Your task to perform on an android device: Search for sushi restaurants on Maps Image 0: 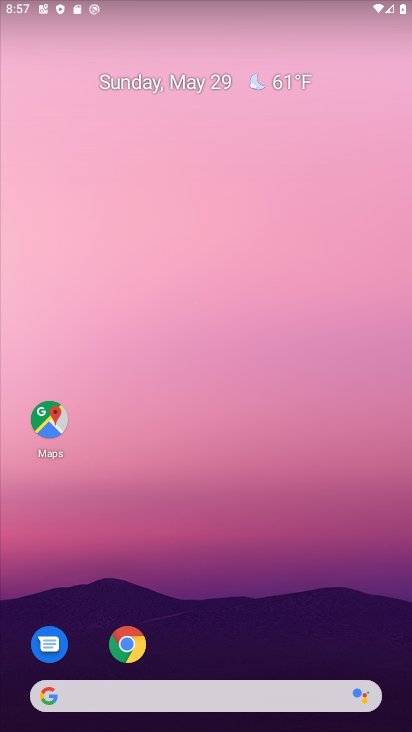
Step 0: click (48, 420)
Your task to perform on an android device: Search for sushi restaurants on Maps Image 1: 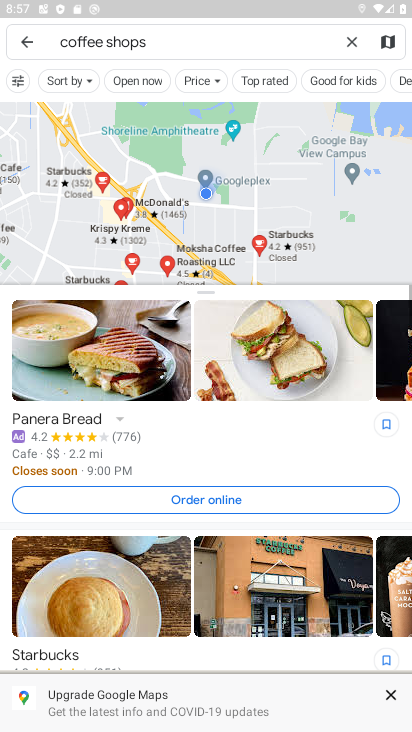
Step 1: click (225, 40)
Your task to perform on an android device: Search for sushi restaurants on Maps Image 2: 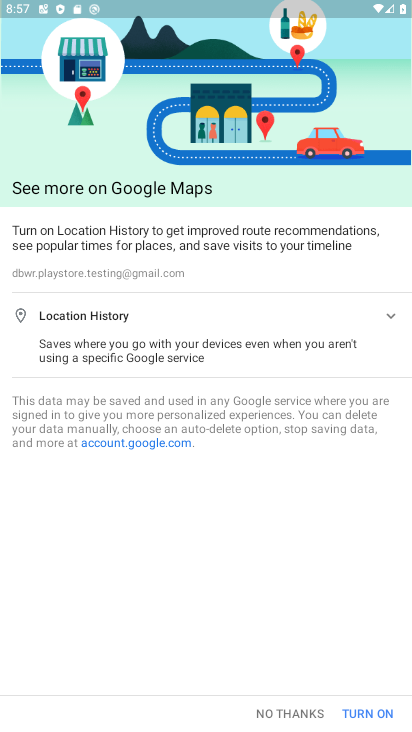
Step 2: click (370, 714)
Your task to perform on an android device: Search for sushi restaurants on Maps Image 3: 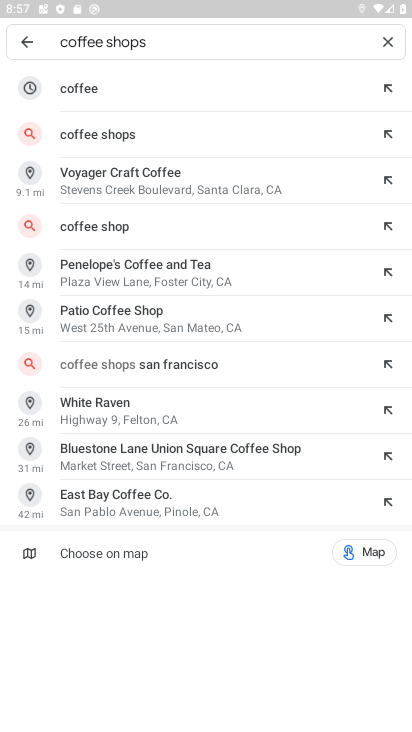
Step 3: click (391, 40)
Your task to perform on an android device: Search for sushi restaurants on Maps Image 4: 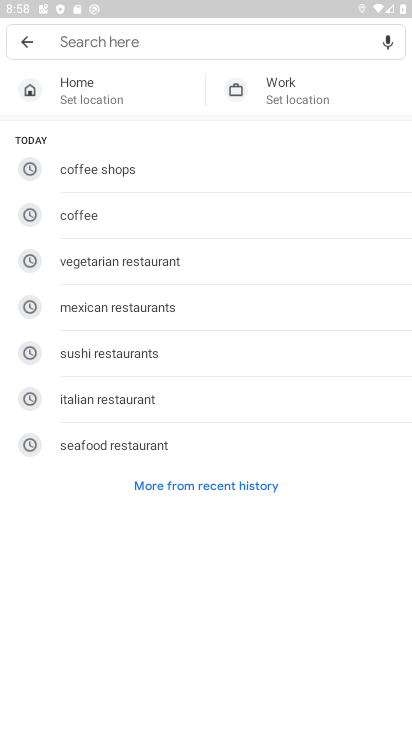
Step 4: click (165, 353)
Your task to perform on an android device: Search for sushi restaurants on Maps Image 5: 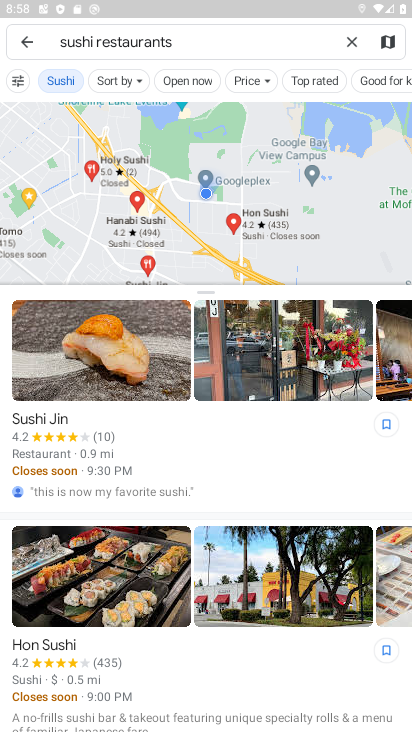
Step 5: task complete